Your task to perform on an android device: turn off wifi Image 0: 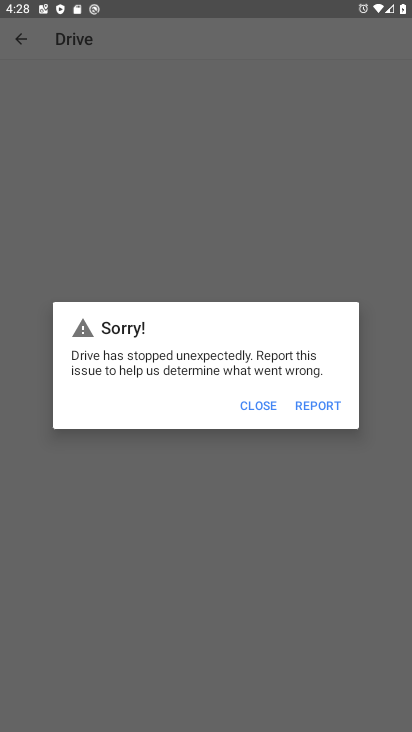
Step 0: press home button
Your task to perform on an android device: turn off wifi Image 1: 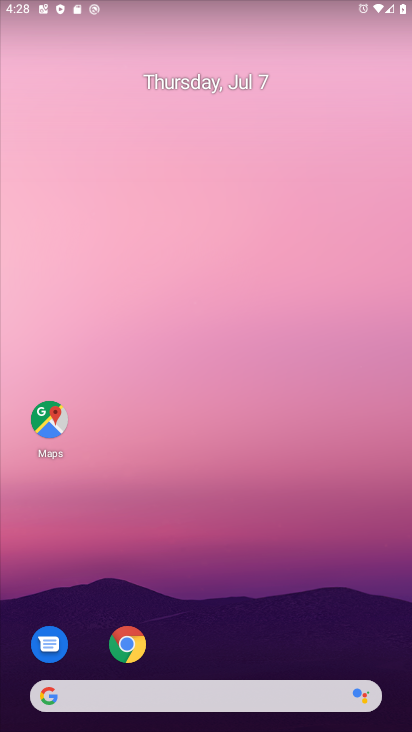
Step 1: drag from (253, 650) to (237, 83)
Your task to perform on an android device: turn off wifi Image 2: 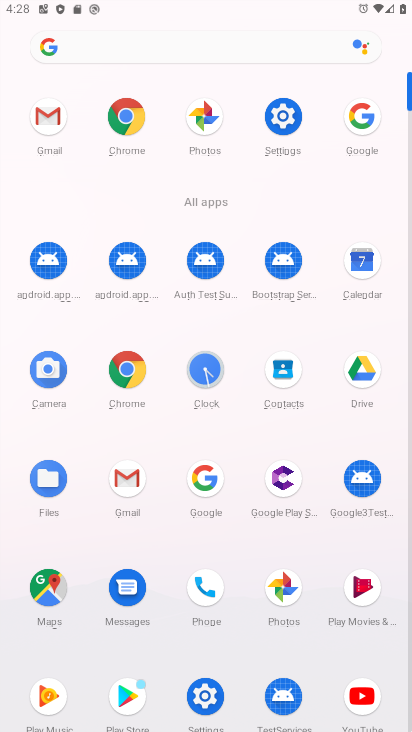
Step 2: click (283, 116)
Your task to perform on an android device: turn off wifi Image 3: 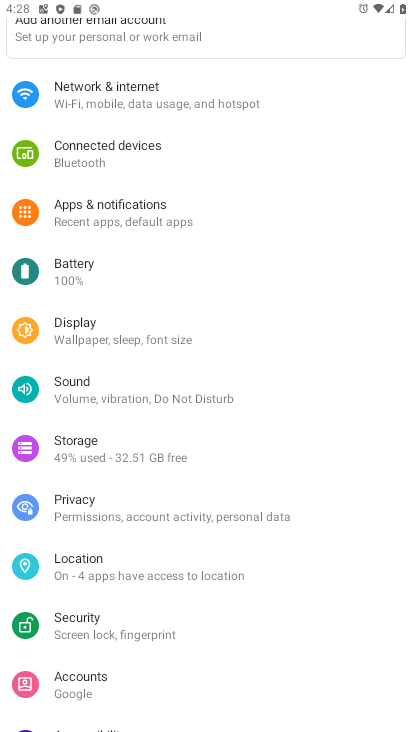
Step 3: click (208, 109)
Your task to perform on an android device: turn off wifi Image 4: 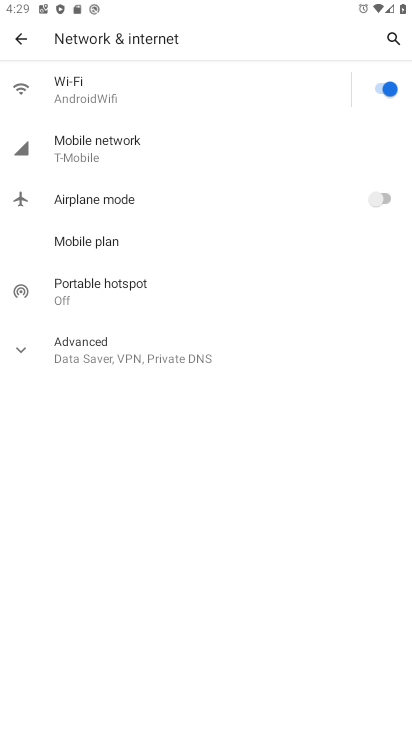
Step 4: click (382, 88)
Your task to perform on an android device: turn off wifi Image 5: 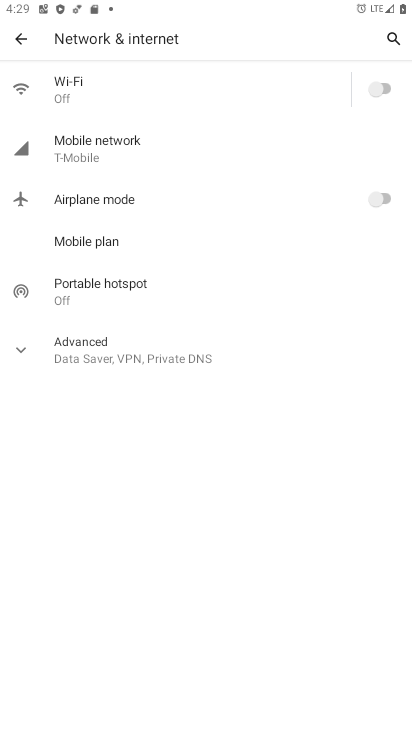
Step 5: task complete